Your task to perform on an android device: Open Chrome and go to the settings page Image 0: 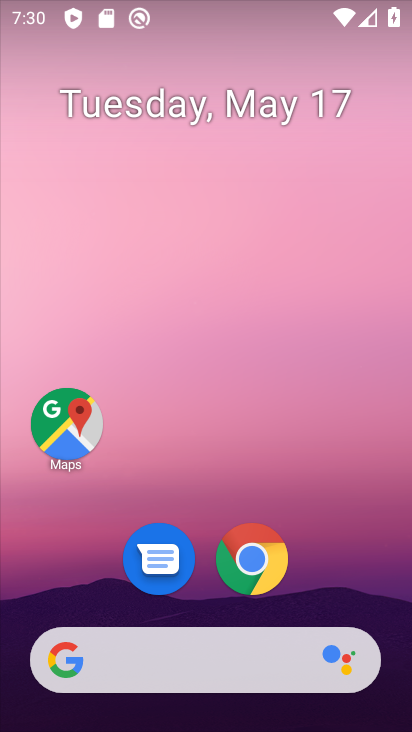
Step 0: click (271, 581)
Your task to perform on an android device: Open Chrome and go to the settings page Image 1: 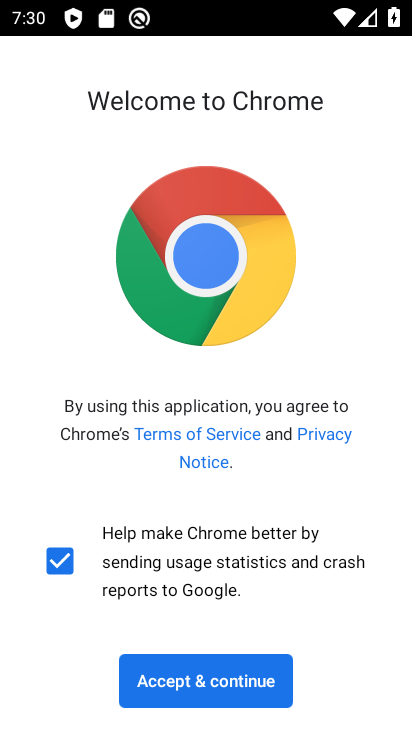
Step 1: click (232, 670)
Your task to perform on an android device: Open Chrome and go to the settings page Image 2: 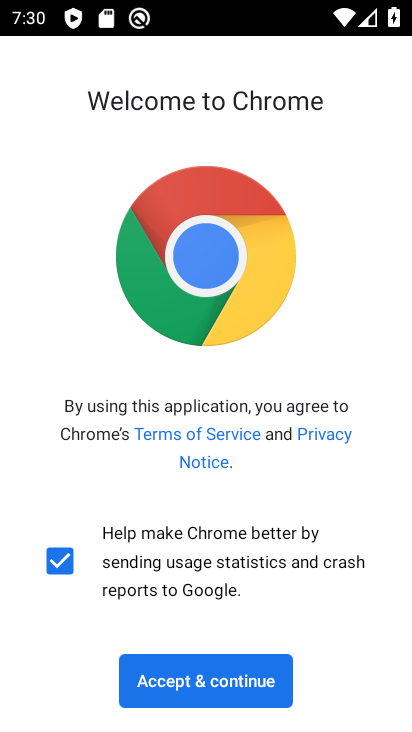
Step 2: click (232, 670)
Your task to perform on an android device: Open Chrome and go to the settings page Image 3: 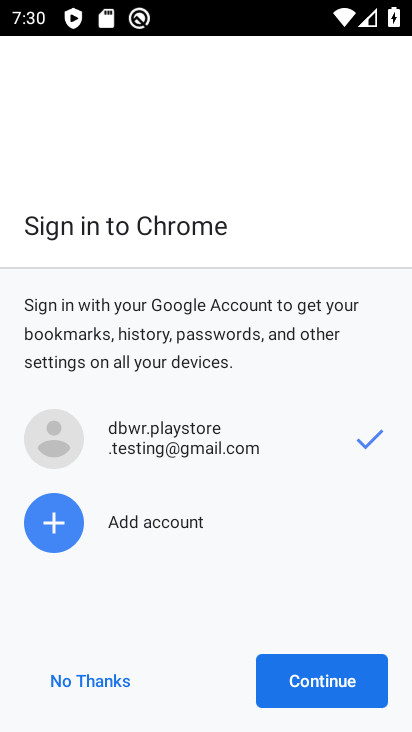
Step 3: click (345, 674)
Your task to perform on an android device: Open Chrome and go to the settings page Image 4: 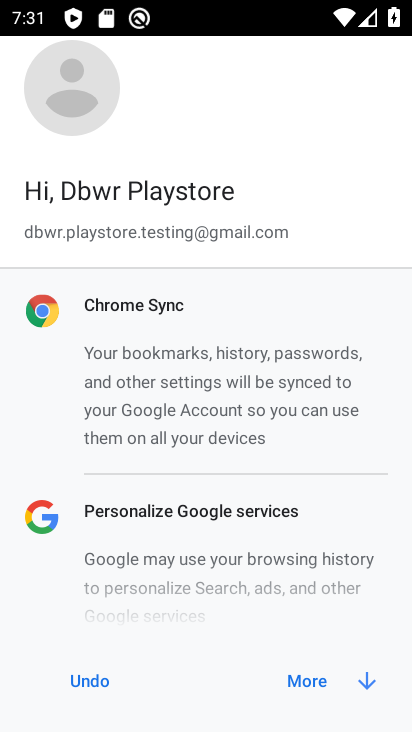
Step 4: click (318, 681)
Your task to perform on an android device: Open Chrome and go to the settings page Image 5: 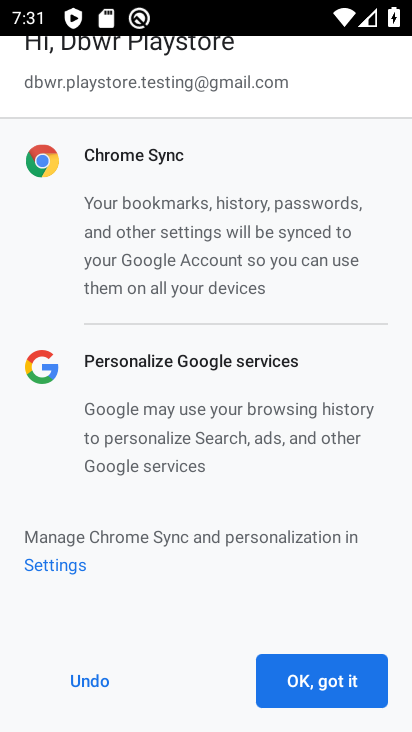
Step 5: click (320, 681)
Your task to perform on an android device: Open Chrome and go to the settings page Image 6: 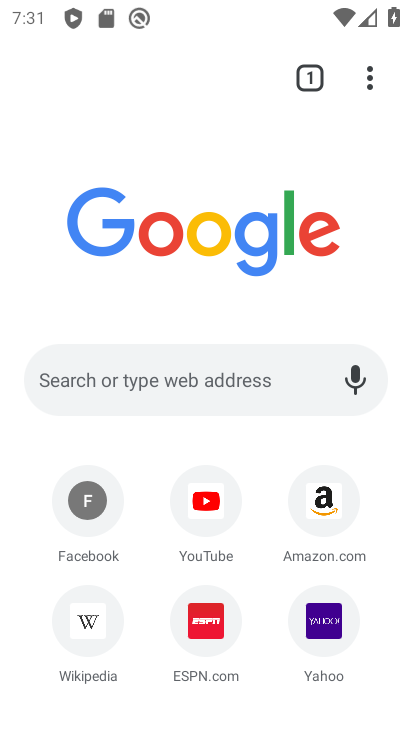
Step 6: click (367, 83)
Your task to perform on an android device: Open Chrome and go to the settings page Image 7: 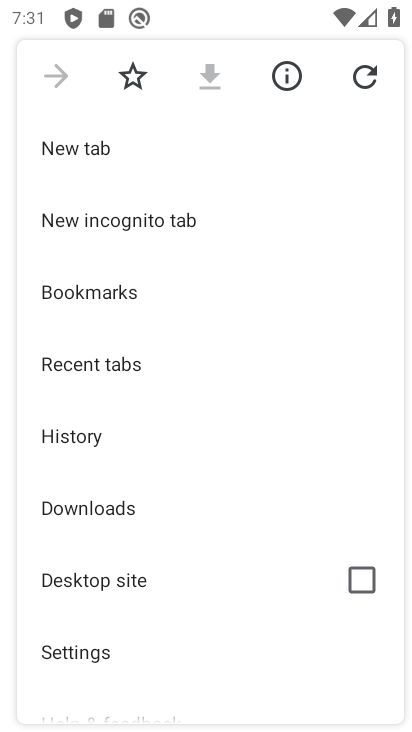
Step 7: click (83, 660)
Your task to perform on an android device: Open Chrome and go to the settings page Image 8: 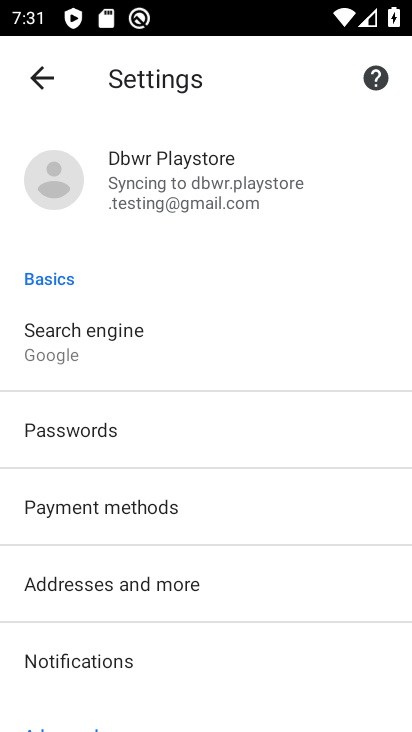
Step 8: task complete